Your task to perform on an android device: Go to notification settings Image 0: 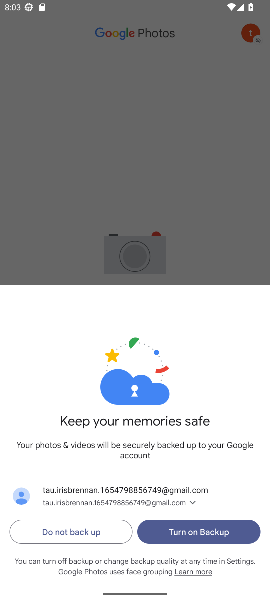
Step 0: press home button
Your task to perform on an android device: Go to notification settings Image 1: 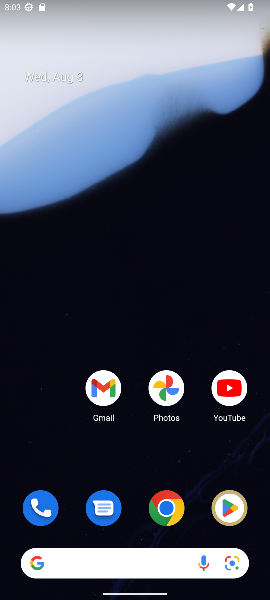
Step 1: drag from (144, 540) to (120, 28)
Your task to perform on an android device: Go to notification settings Image 2: 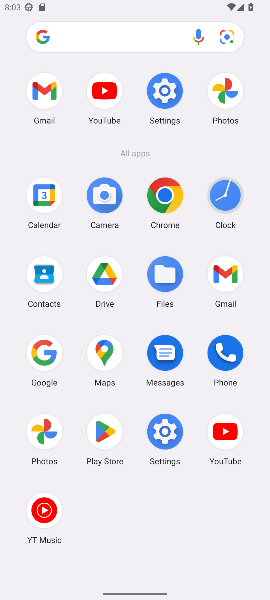
Step 2: click (165, 433)
Your task to perform on an android device: Go to notification settings Image 3: 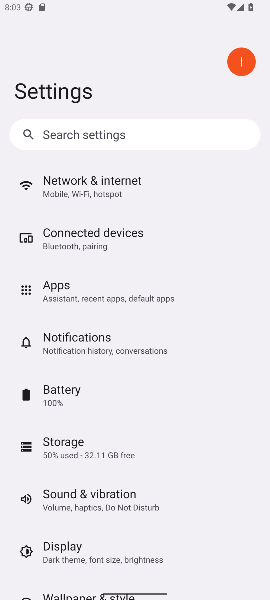
Step 3: click (63, 357)
Your task to perform on an android device: Go to notification settings Image 4: 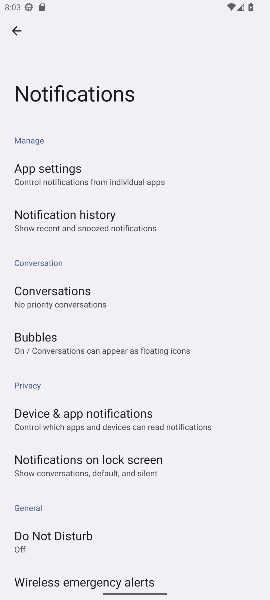
Step 4: click (116, 430)
Your task to perform on an android device: Go to notification settings Image 5: 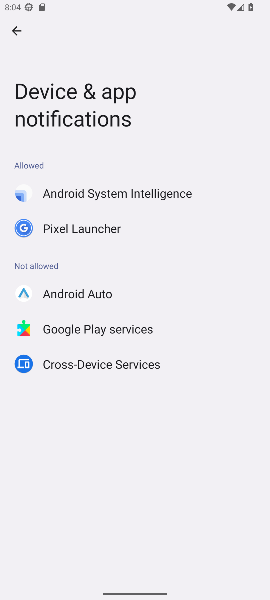
Step 5: task complete